Your task to perform on an android device: Open Wikipedia Image 0: 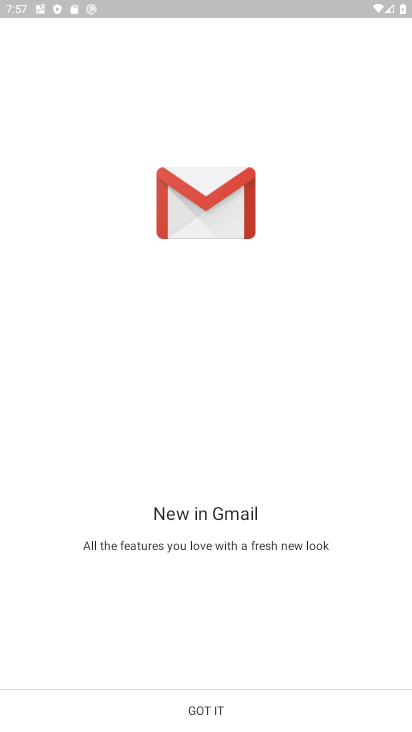
Step 0: click (212, 706)
Your task to perform on an android device: Open Wikipedia Image 1: 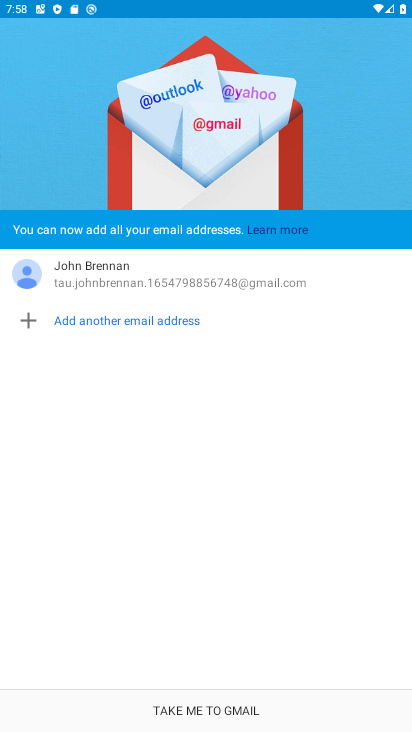
Step 1: click (184, 710)
Your task to perform on an android device: Open Wikipedia Image 2: 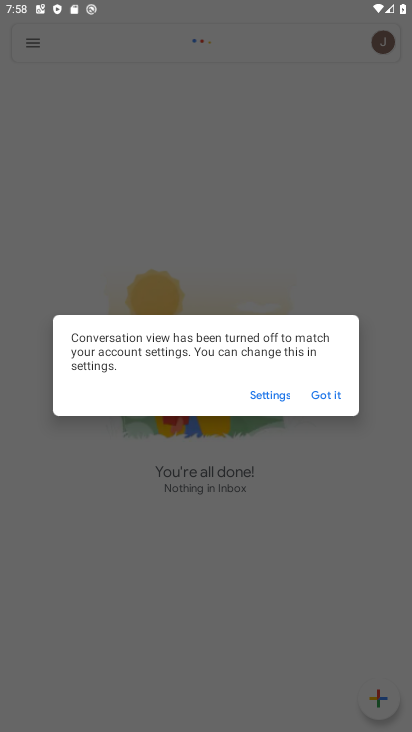
Step 2: click (321, 389)
Your task to perform on an android device: Open Wikipedia Image 3: 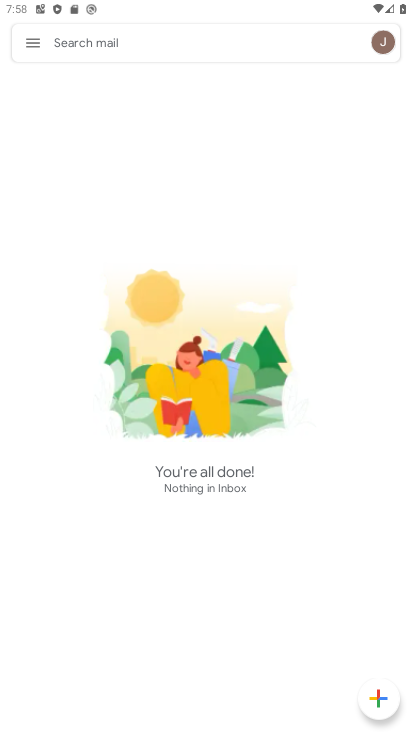
Step 3: task complete